Your task to perform on an android device: turn notification dots off Image 0: 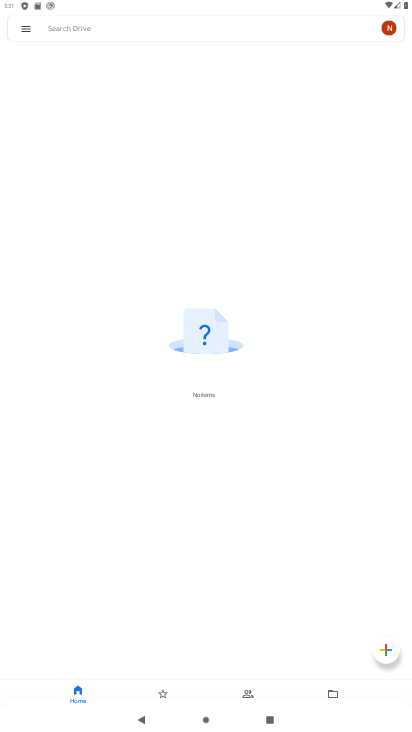
Step 0: press home button
Your task to perform on an android device: turn notification dots off Image 1: 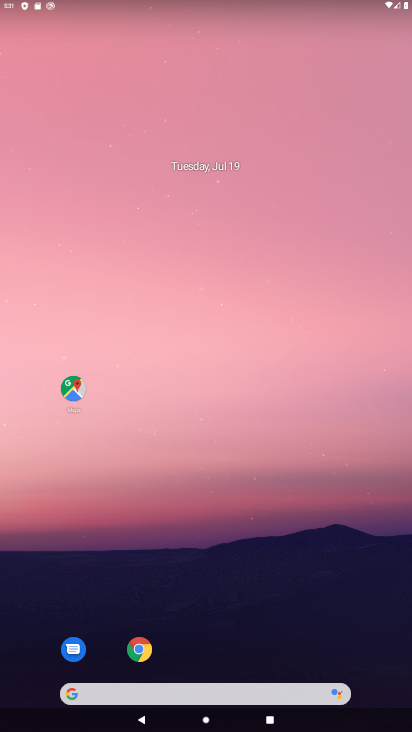
Step 1: click (242, 140)
Your task to perform on an android device: turn notification dots off Image 2: 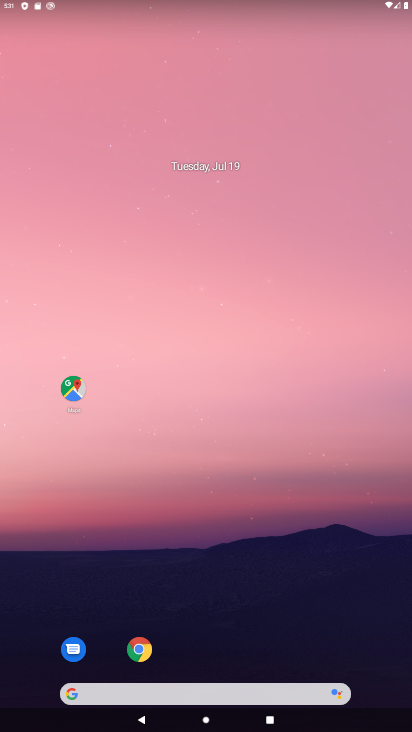
Step 2: drag from (261, 591) to (264, 60)
Your task to perform on an android device: turn notification dots off Image 3: 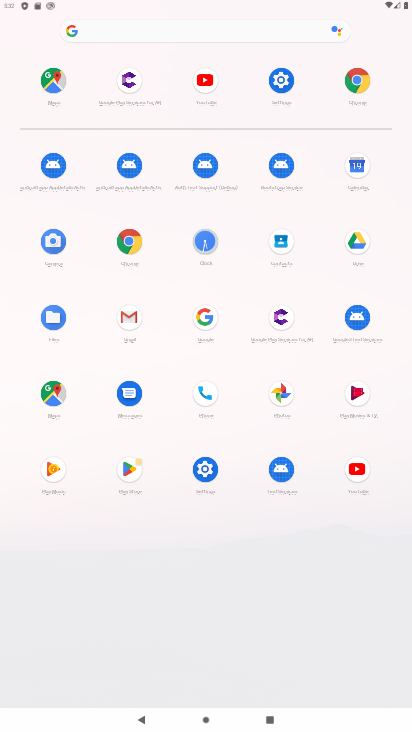
Step 3: click (283, 83)
Your task to perform on an android device: turn notification dots off Image 4: 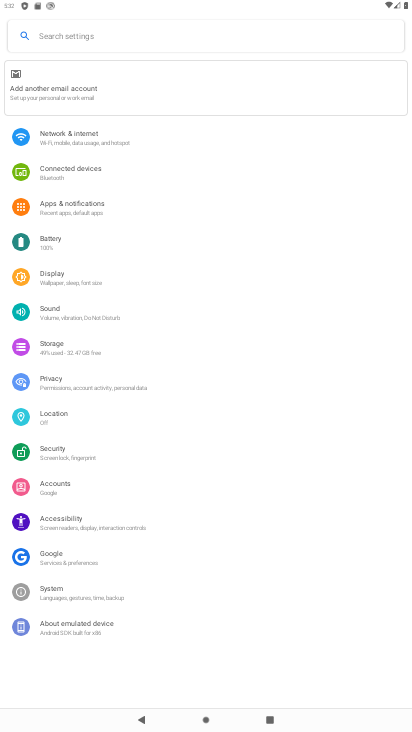
Step 4: click (87, 213)
Your task to perform on an android device: turn notification dots off Image 5: 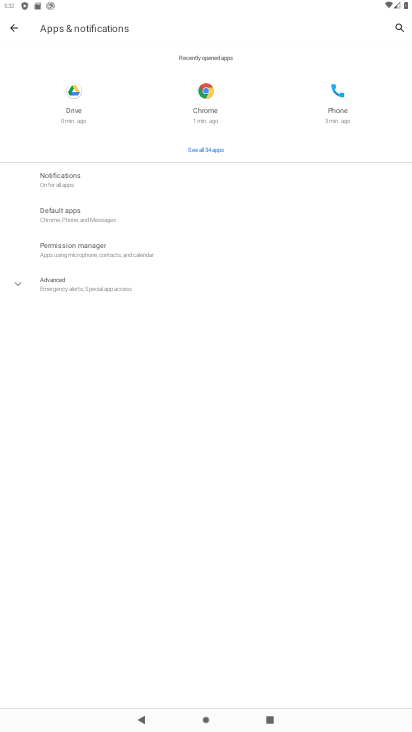
Step 5: click (67, 191)
Your task to perform on an android device: turn notification dots off Image 6: 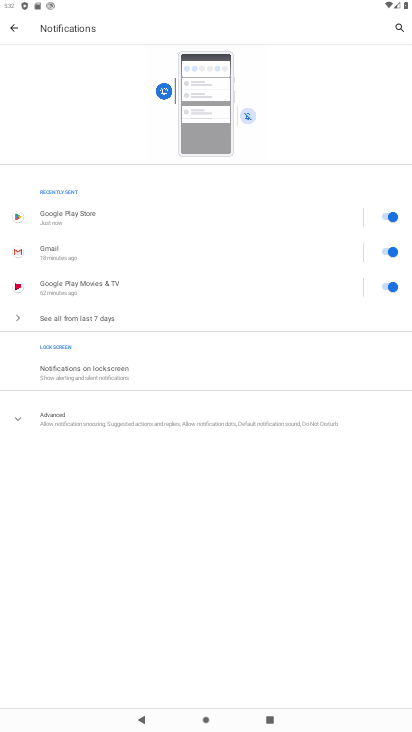
Step 6: click (83, 416)
Your task to perform on an android device: turn notification dots off Image 7: 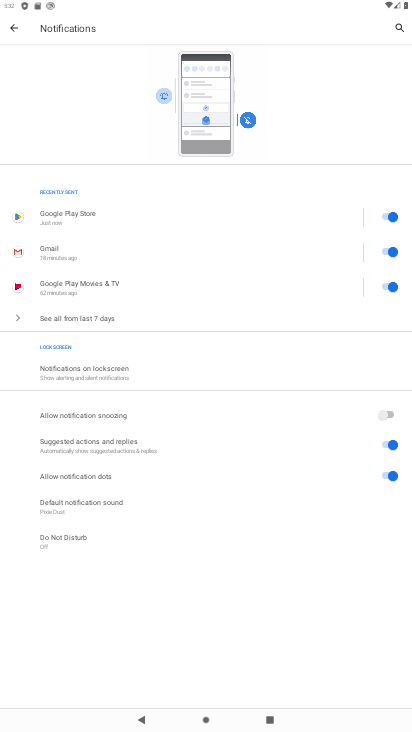
Step 7: click (381, 477)
Your task to perform on an android device: turn notification dots off Image 8: 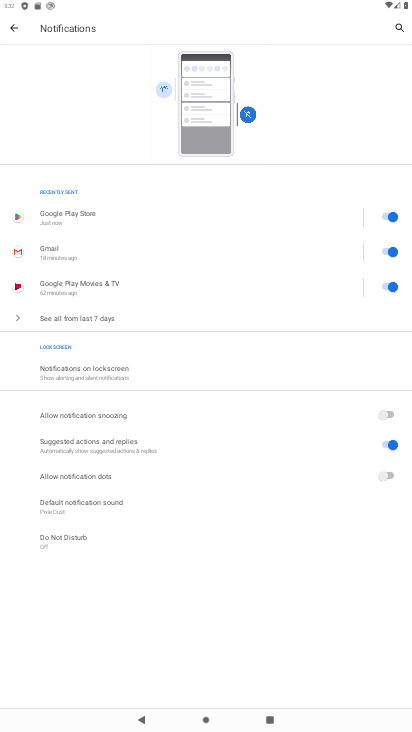
Step 8: task complete